Your task to perform on an android device: turn off smart reply in the gmail app Image 0: 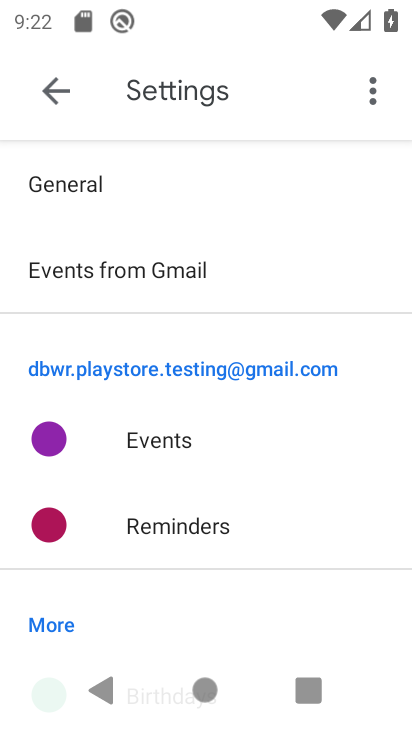
Step 0: press home button
Your task to perform on an android device: turn off smart reply in the gmail app Image 1: 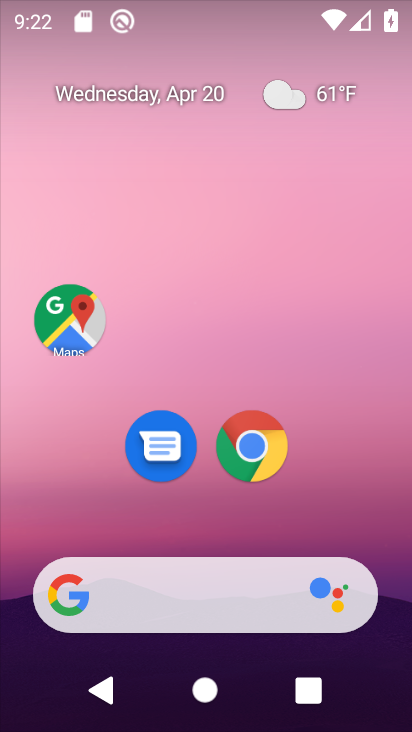
Step 1: drag from (360, 481) to (340, 146)
Your task to perform on an android device: turn off smart reply in the gmail app Image 2: 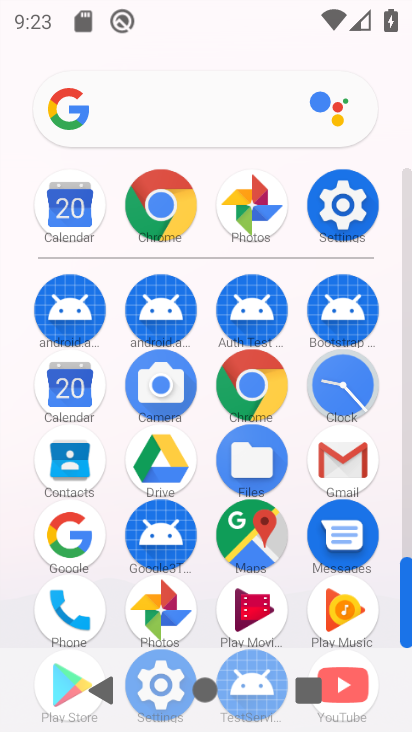
Step 2: click (340, 471)
Your task to perform on an android device: turn off smart reply in the gmail app Image 3: 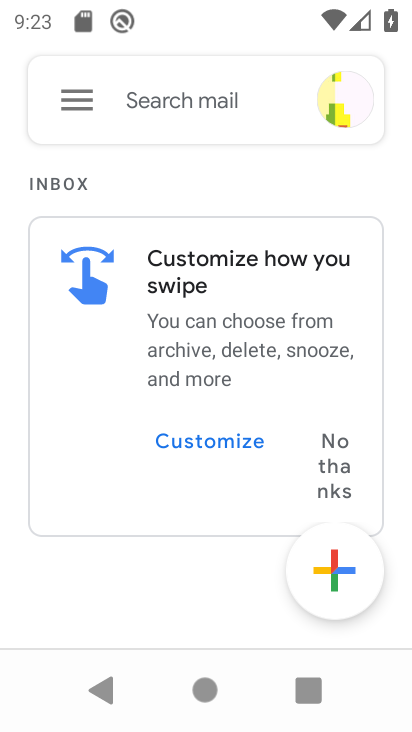
Step 3: click (74, 101)
Your task to perform on an android device: turn off smart reply in the gmail app Image 4: 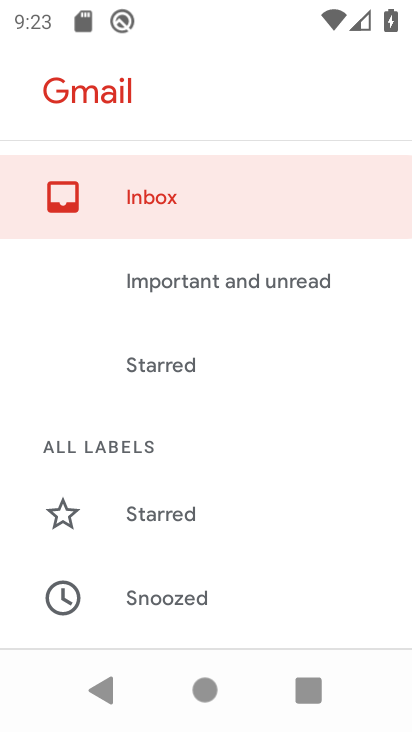
Step 4: drag from (292, 564) to (287, 358)
Your task to perform on an android device: turn off smart reply in the gmail app Image 5: 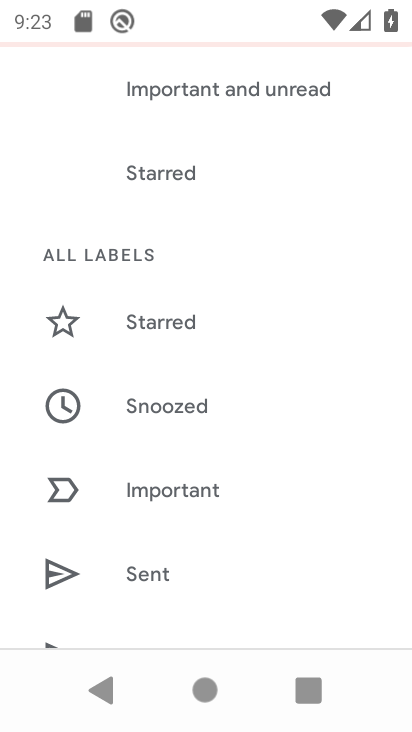
Step 5: drag from (286, 586) to (272, 363)
Your task to perform on an android device: turn off smart reply in the gmail app Image 6: 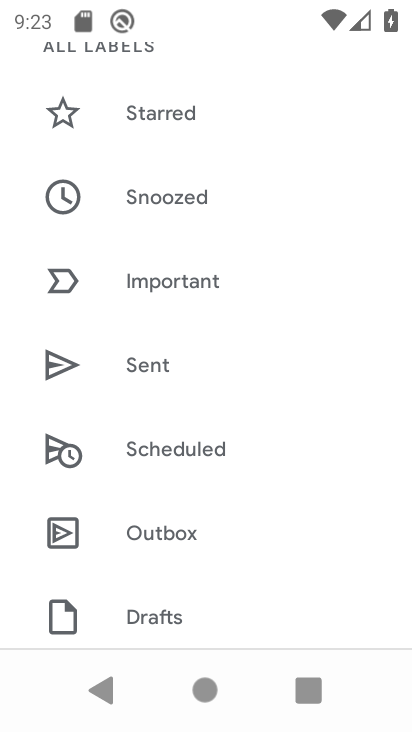
Step 6: drag from (267, 581) to (298, 345)
Your task to perform on an android device: turn off smart reply in the gmail app Image 7: 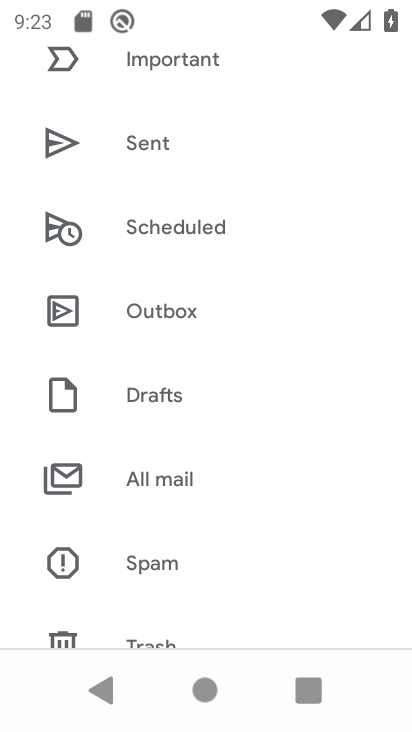
Step 7: drag from (281, 569) to (274, 328)
Your task to perform on an android device: turn off smart reply in the gmail app Image 8: 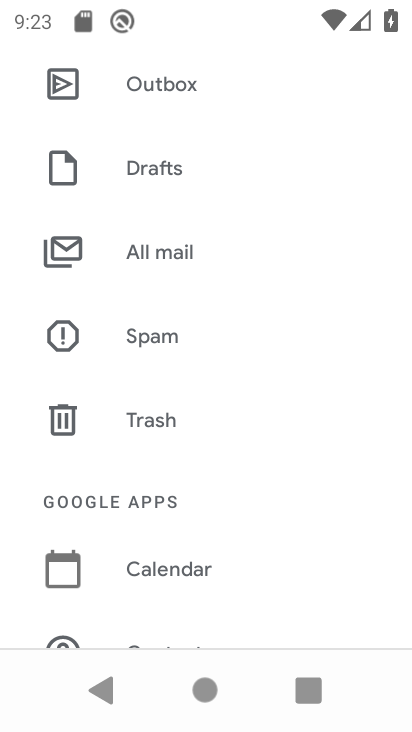
Step 8: drag from (267, 583) to (279, 362)
Your task to perform on an android device: turn off smart reply in the gmail app Image 9: 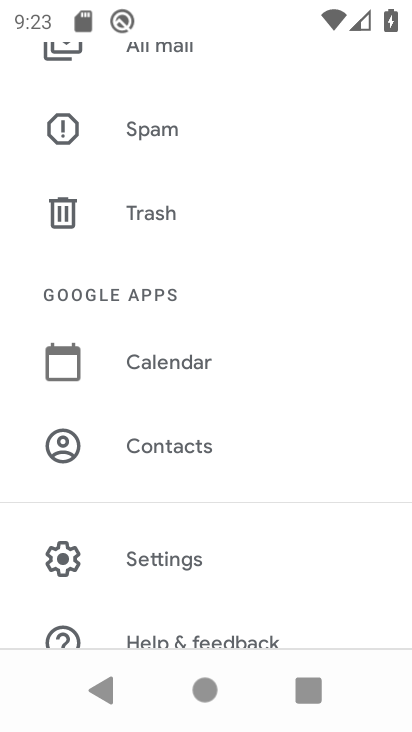
Step 9: click (172, 579)
Your task to perform on an android device: turn off smart reply in the gmail app Image 10: 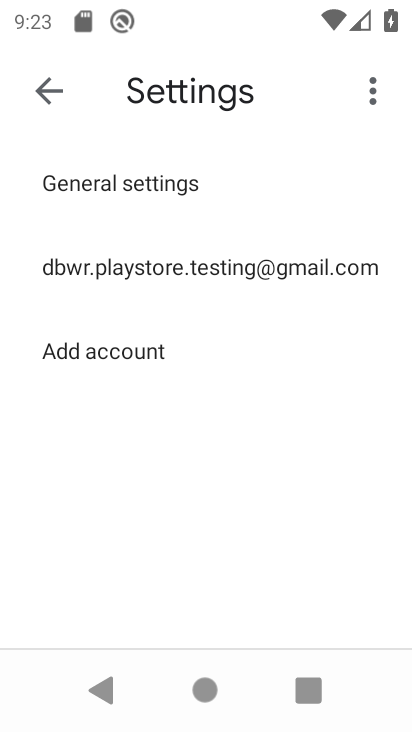
Step 10: click (241, 258)
Your task to perform on an android device: turn off smart reply in the gmail app Image 11: 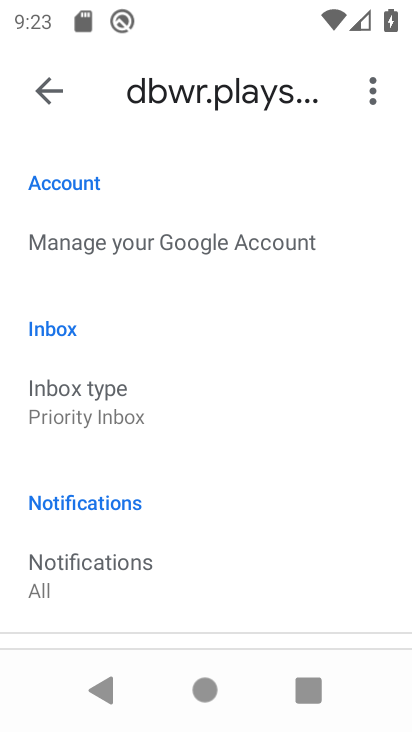
Step 11: drag from (255, 540) to (284, 343)
Your task to perform on an android device: turn off smart reply in the gmail app Image 12: 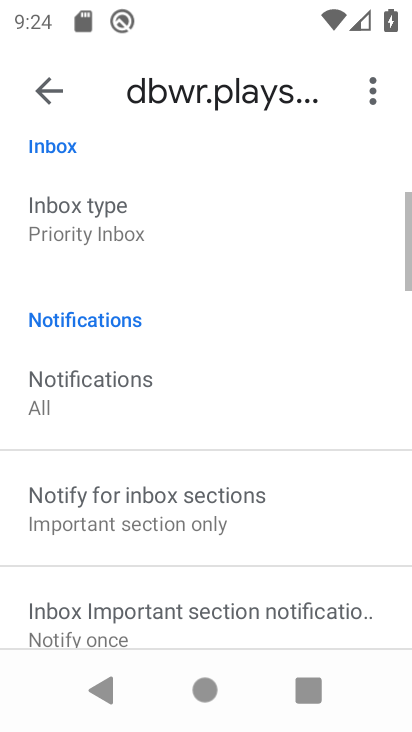
Step 12: click (219, 334)
Your task to perform on an android device: turn off smart reply in the gmail app Image 13: 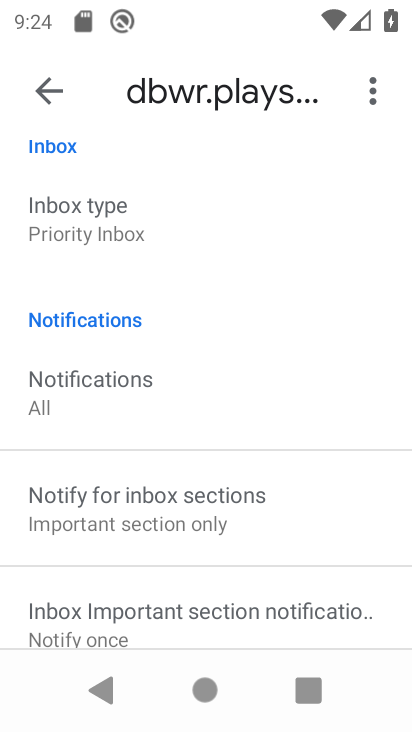
Step 13: drag from (277, 552) to (266, 280)
Your task to perform on an android device: turn off smart reply in the gmail app Image 14: 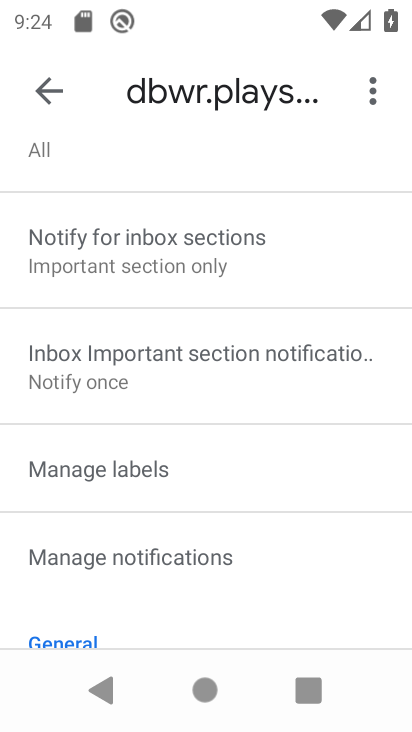
Step 14: drag from (269, 612) to (307, 287)
Your task to perform on an android device: turn off smart reply in the gmail app Image 15: 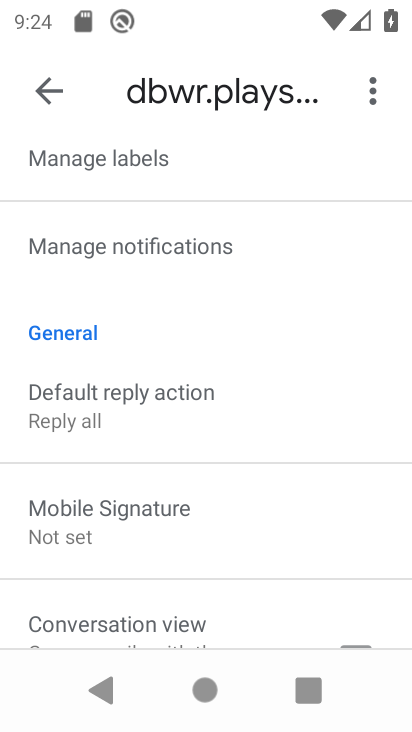
Step 15: drag from (298, 396) to (295, 281)
Your task to perform on an android device: turn off smart reply in the gmail app Image 16: 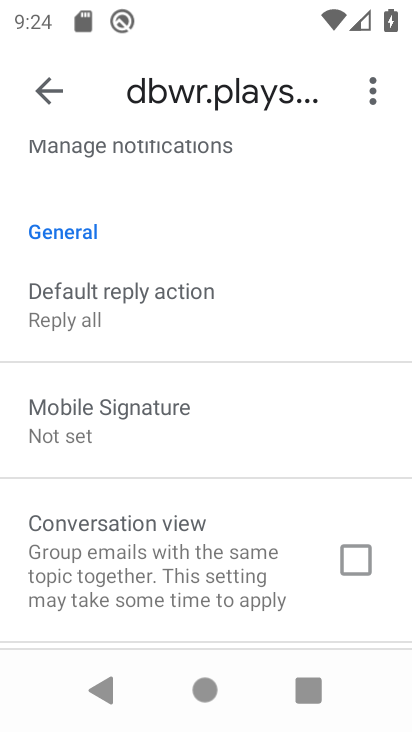
Step 16: drag from (273, 479) to (270, 306)
Your task to perform on an android device: turn off smart reply in the gmail app Image 17: 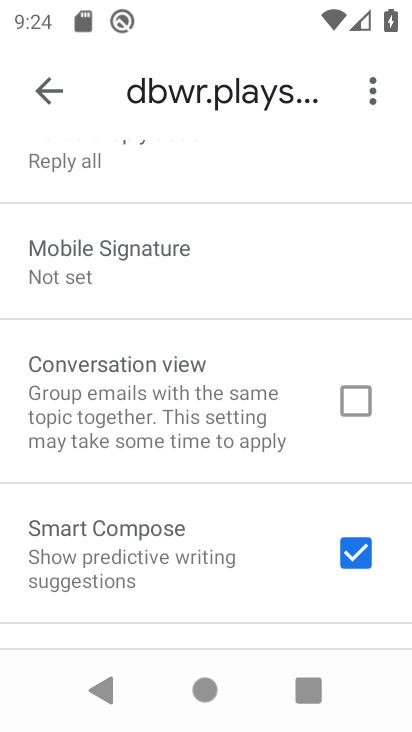
Step 17: drag from (237, 573) to (231, 328)
Your task to perform on an android device: turn off smart reply in the gmail app Image 18: 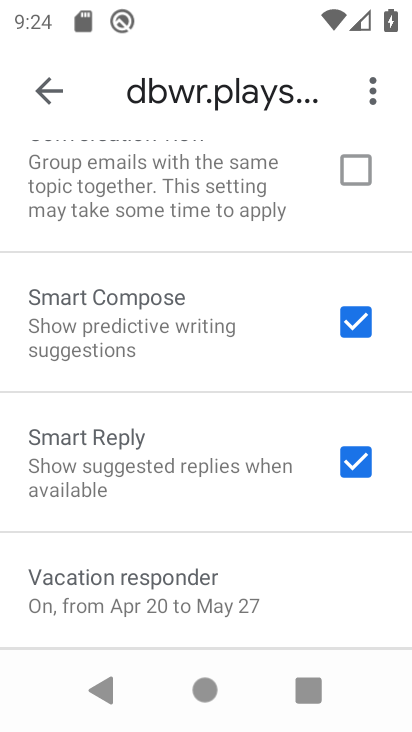
Step 18: drag from (202, 531) to (199, 290)
Your task to perform on an android device: turn off smart reply in the gmail app Image 19: 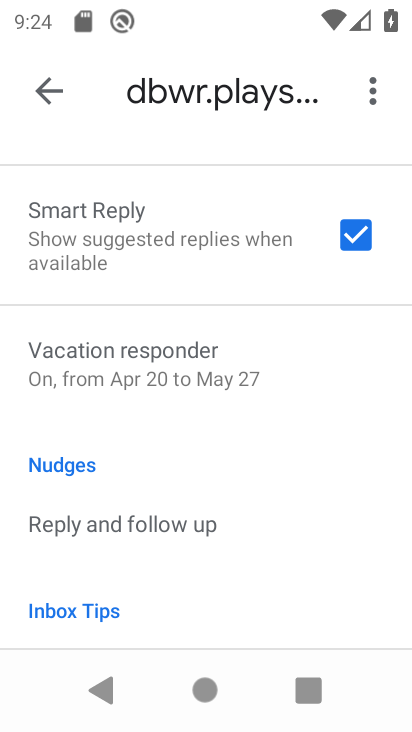
Step 19: drag from (176, 561) to (170, 405)
Your task to perform on an android device: turn off smart reply in the gmail app Image 20: 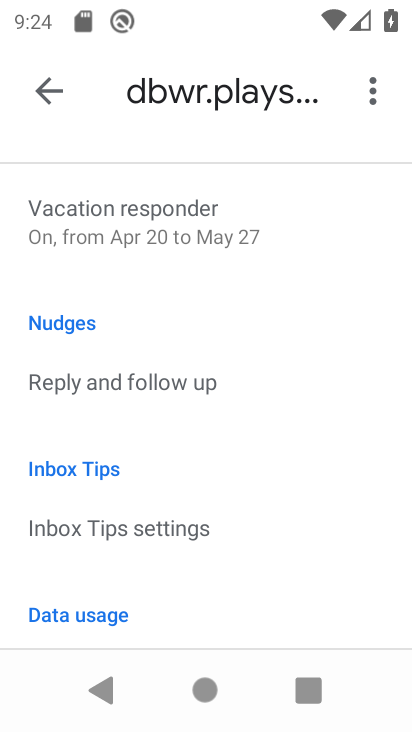
Step 20: drag from (259, 274) to (221, 508)
Your task to perform on an android device: turn off smart reply in the gmail app Image 21: 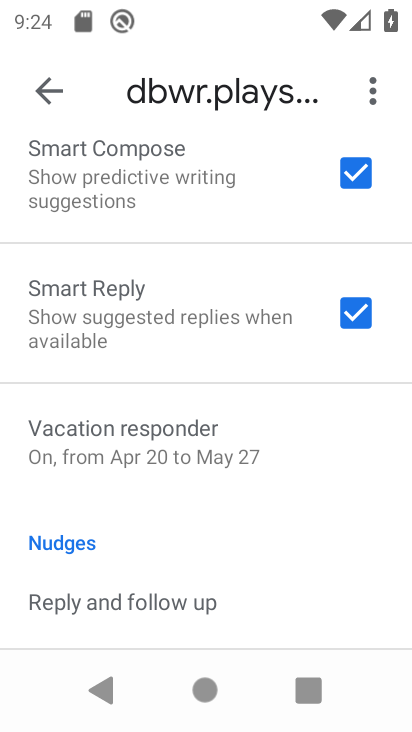
Step 21: click (350, 315)
Your task to perform on an android device: turn off smart reply in the gmail app Image 22: 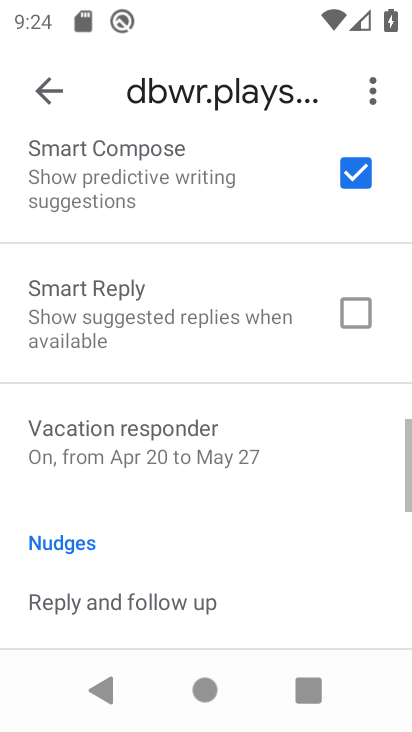
Step 22: task complete